Your task to perform on an android device: turn off notifications in google photos Image 0: 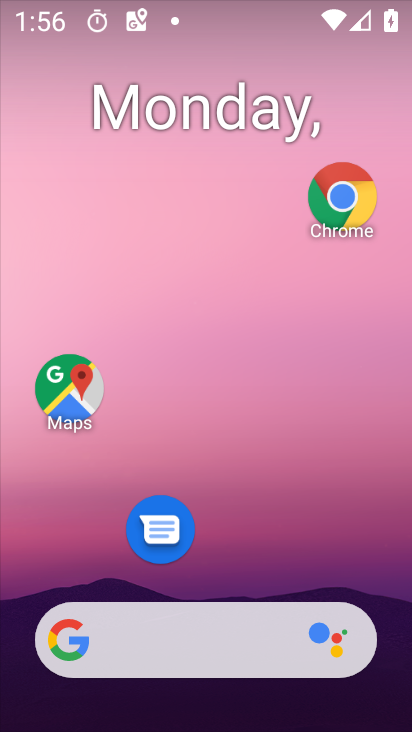
Step 0: drag from (217, 596) to (189, 16)
Your task to perform on an android device: turn off notifications in google photos Image 1: 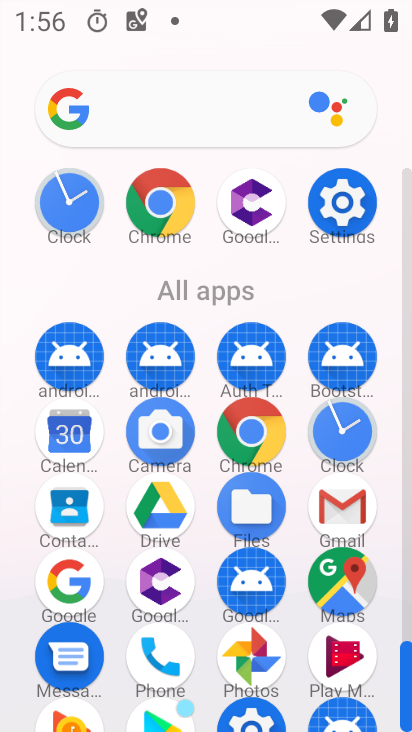
Step 1: click (259, 645)
Your task to perform on an android device: turn off notifications in google photos Image 2: 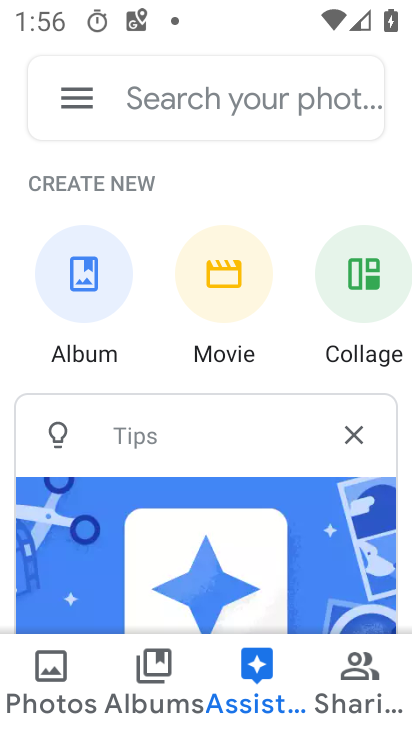
Step 2: click (84, 105)
Your task to perform on an android device: turn off notifications in google photos Image 3: 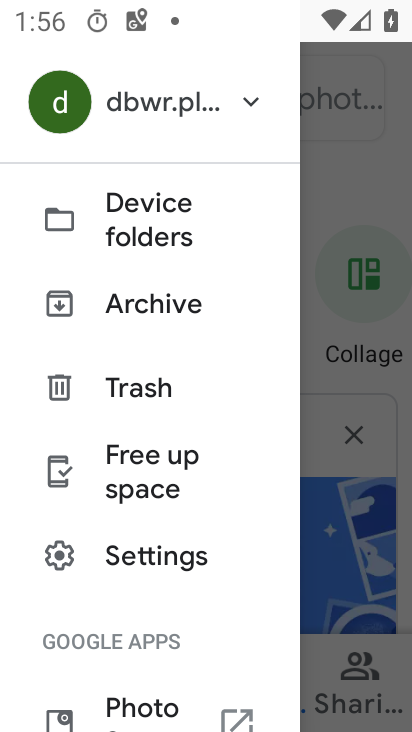
Step 3: click (105, 550)
Your task to perform on an android device: turn off notifications in google photos Image 4: 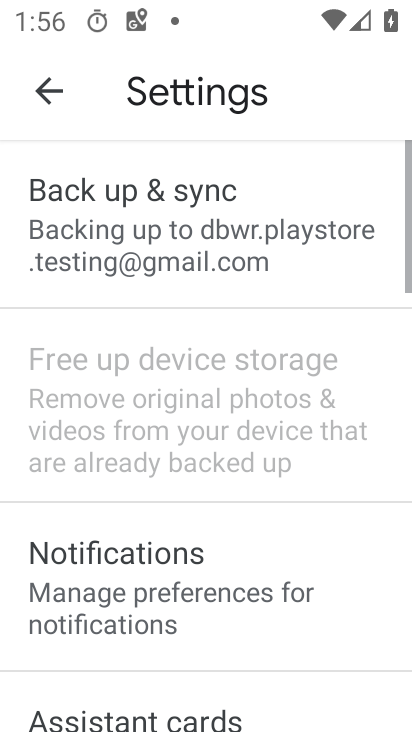
Step 4: click (166, 558)
Your task to perform on an android device: turn off notifications in google photos Image 5: 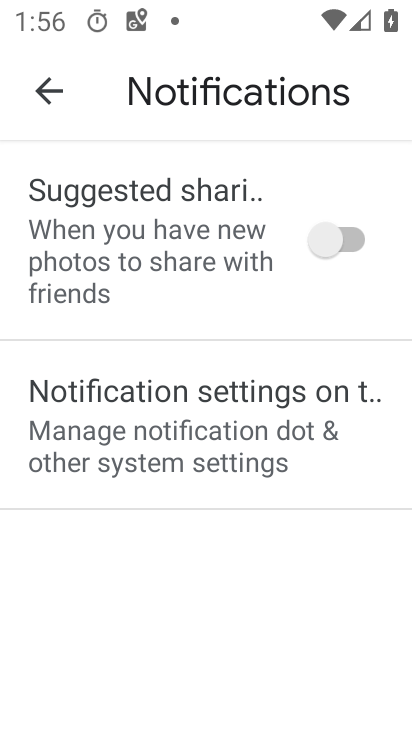
Step 5: click (253, 390)
Your task to perform on an android device: turn off notifications in google photos Image 6: 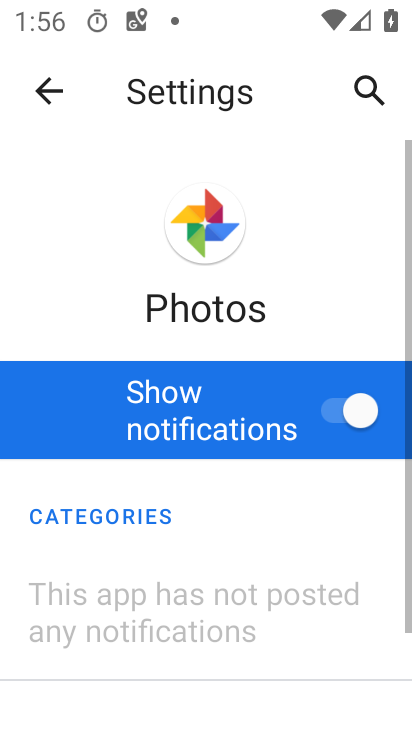
Step 6: click (339, 414)
Your task to perform on an android device: turn off notifications in google photos Image 7: 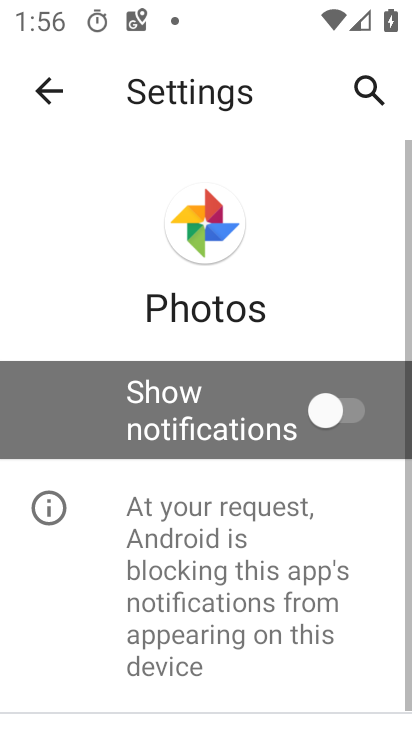
Step 7: task complete